Your task to perform on an android device: open a new tab in the chrome app Image 0: 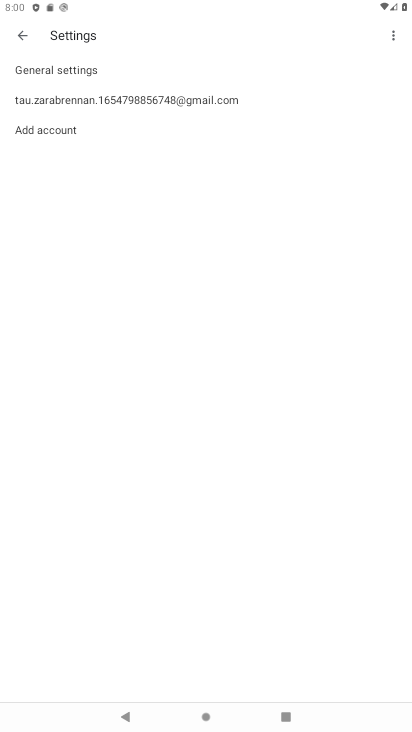
Step 0: task impossible